Your task to perform on an android device: star an email in the gmail app Image 0: 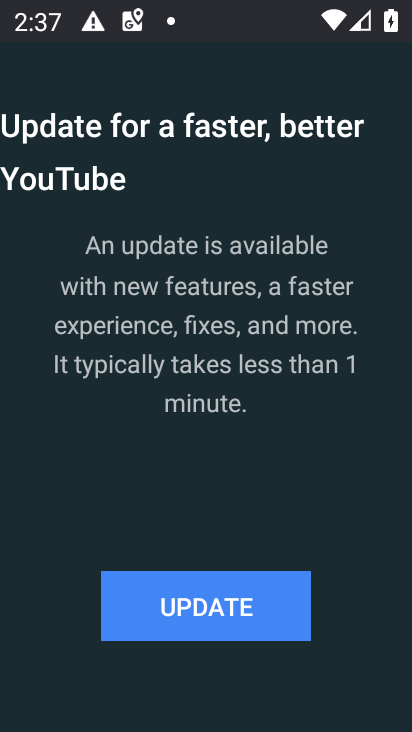
Step 0: task complete